Your task to perform on an android device: Open Maps and search for coffee Image 0: 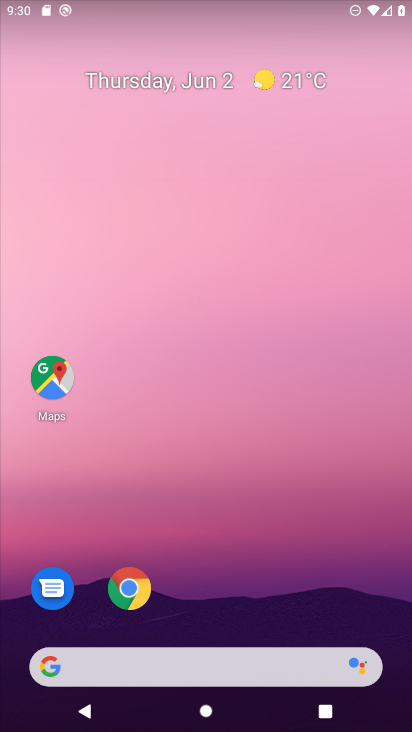
Step 0: drag from (234, 604) to (370, 12)
Your task to perform on an android device: Open Maps and search for coffee Image 1: 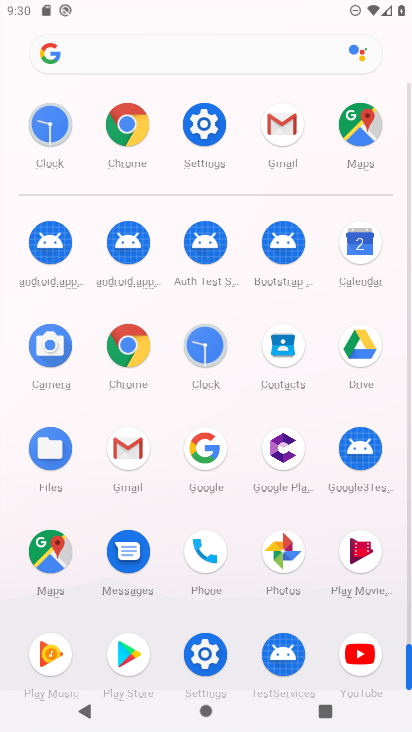
Step 1: click (56, 566)
Your task to perform on an android device: Open Maps and search for coffee Image 2: 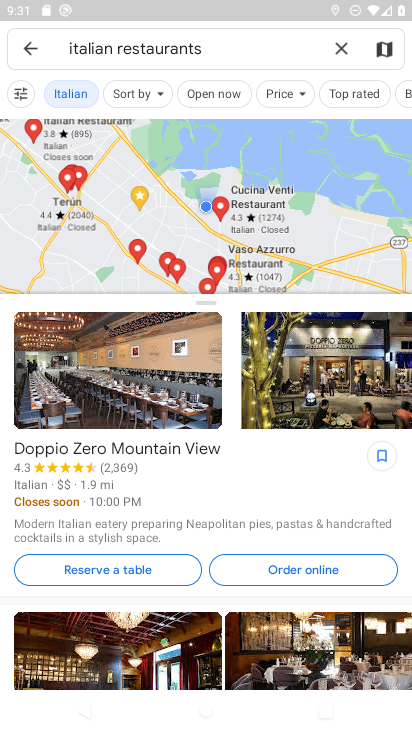
Step 2: click (344, 48)
Your task to perform on an android device: Open Maps and search for coffee Image 3: 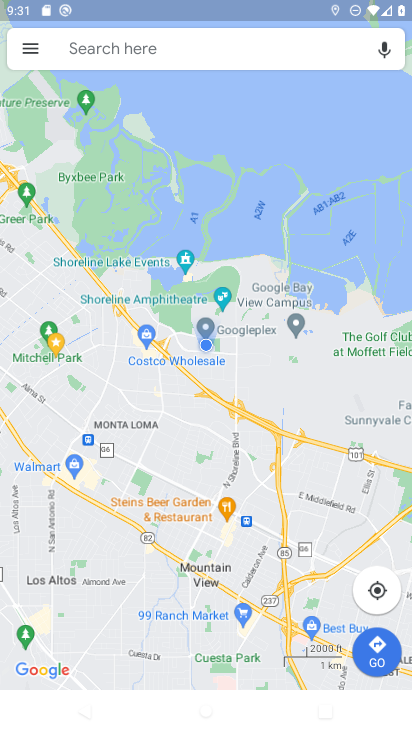
Step 3: click (230, 54)
Your task to perform on an android device: Open Maps and search for coffee Image 4: 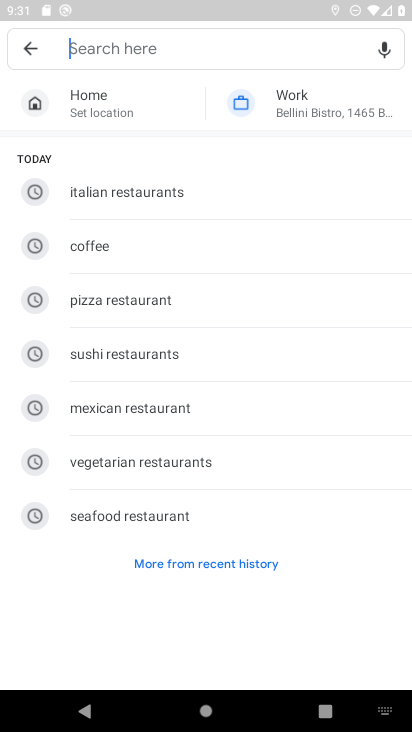
Step 4: type "coffee"
Your task to perform on an android device: Open Maps and search for coffee Image 5: 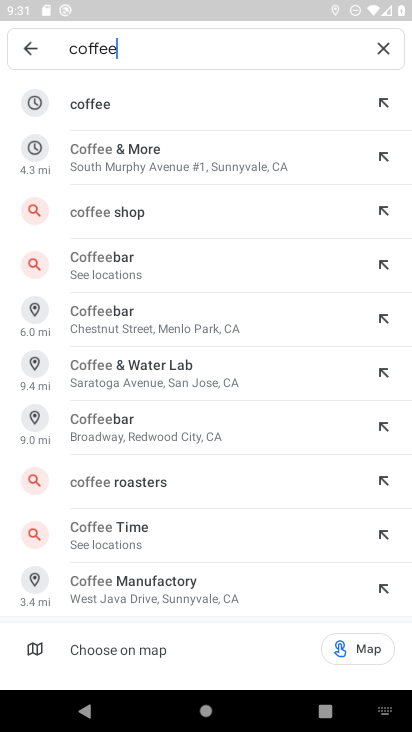
Step 5: click (200, 114)
Your task to perform on an android device: Open Maps and search for coffee Image 6: 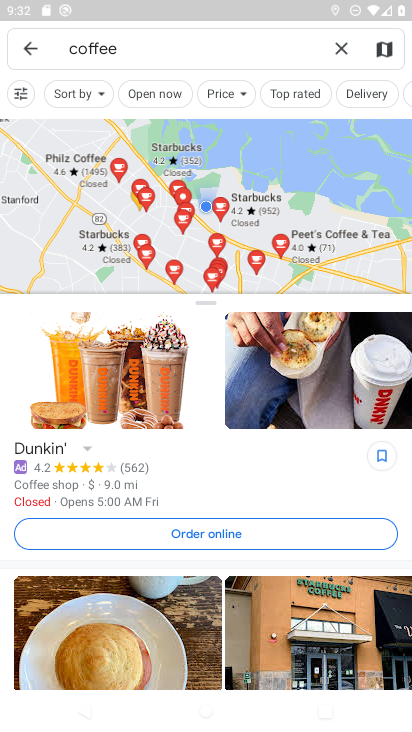
Step 6: task complete